Your task to perform on an android device: turn on wifi Image 0: 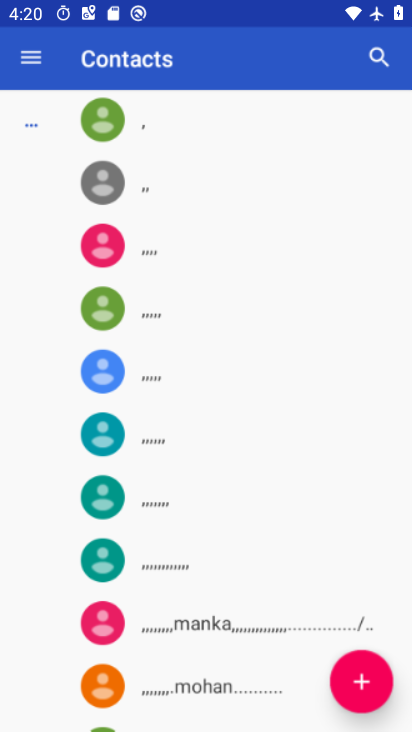
Step 0: drag from (376, 652) to (168, 79)
Your task to perform on an android device: turn on wifi Image 1: 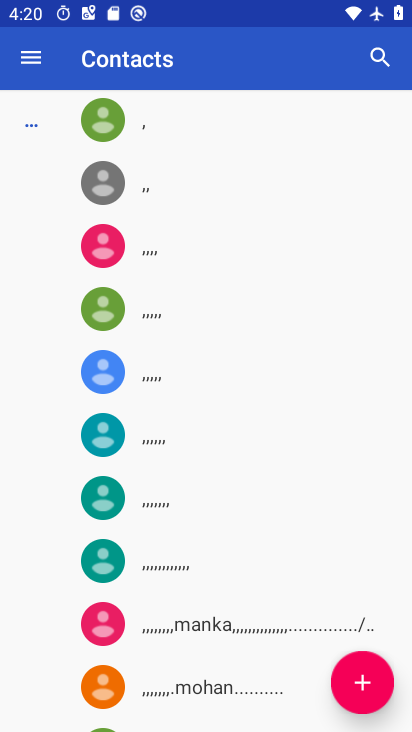
Step 1: press home button
Your task to perform on an android device: turn on wifi Image 2: 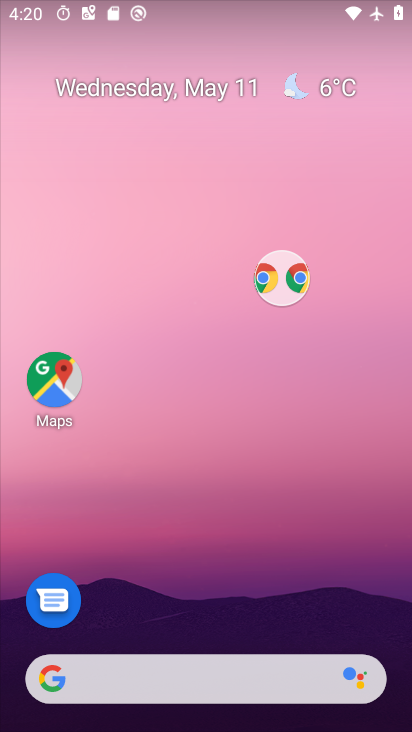
Step 2: drag from (302, 623) to (136, 125)
Your task to perform on an android device: turn on wifi Image 3: 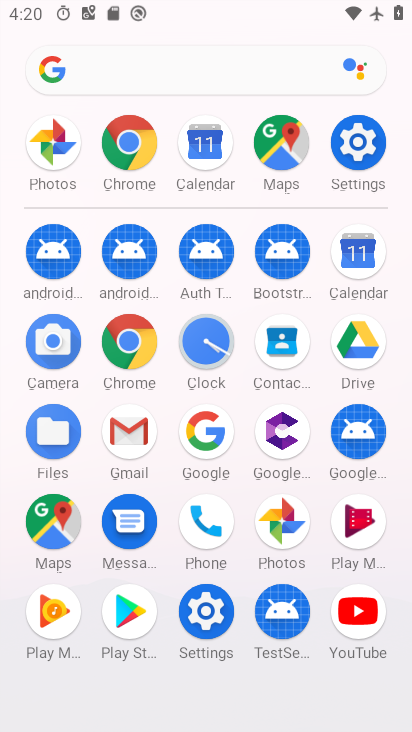
Step 3: click (348, 155)
Your task to perform on an android device: turn on wifi Image 4: 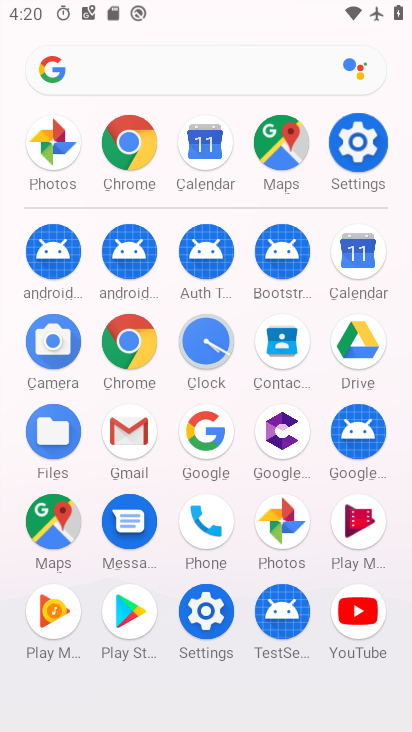
Step 4: click (349, 152)
Your task to perform on an android device: turn on wifi Image 5: 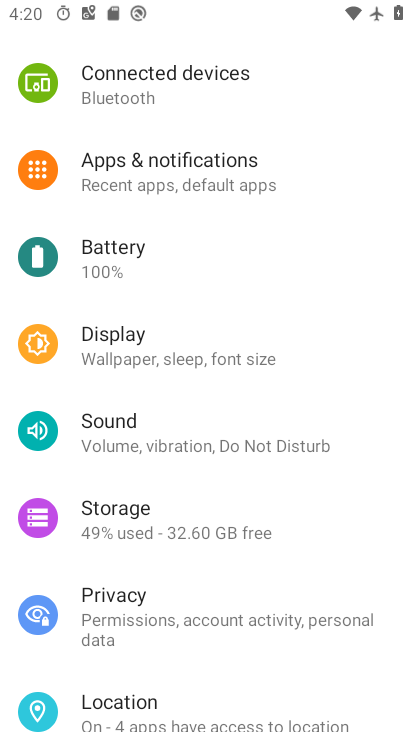
Step 5: drag from (207, 233) to (228, 632)
Your task to perform on an android device: turn on wifi Image 6: 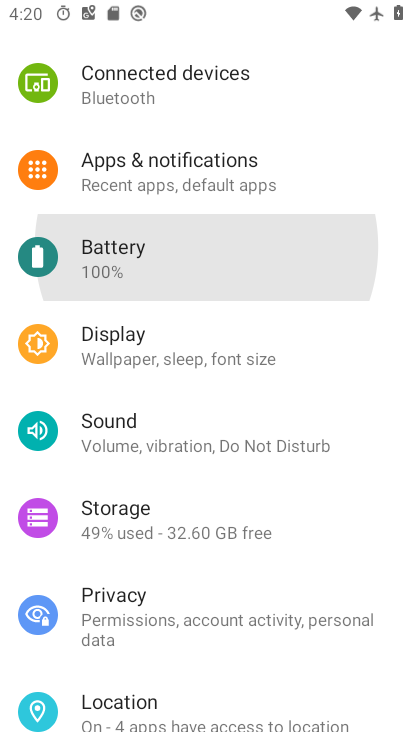
Step 6: drag from (218, 297) to (247, 594)
Your task to perform on an android device: turn on wifi Image 7: 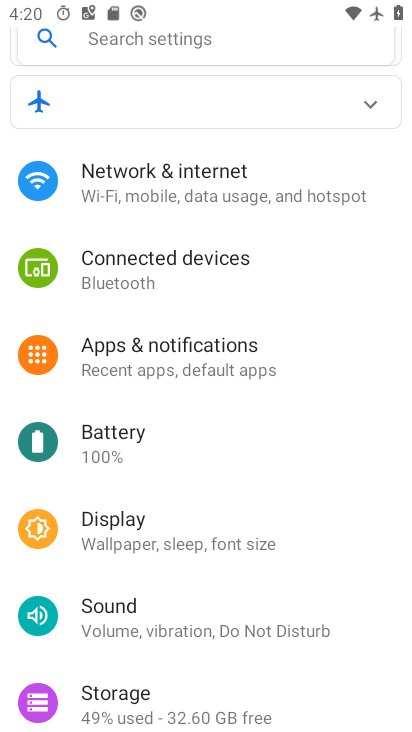
Step 7: drag from (247, 257) to (255, 556)
Your task to perform on an android device: turn on wifi Image 8: 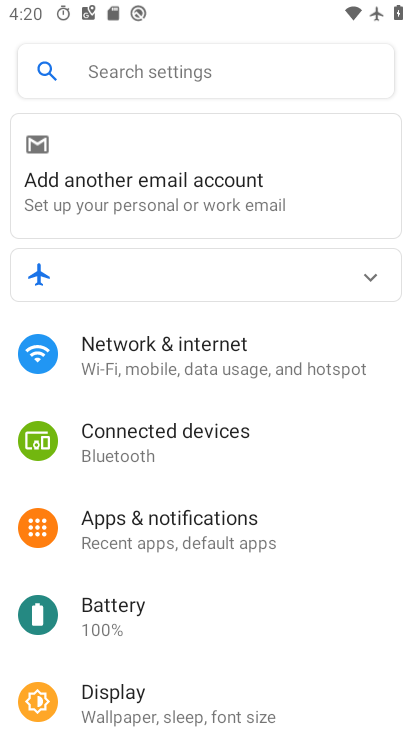
Step 8: click (124, 352)
Your task to perform on an android device: turn on wifi Image 9: 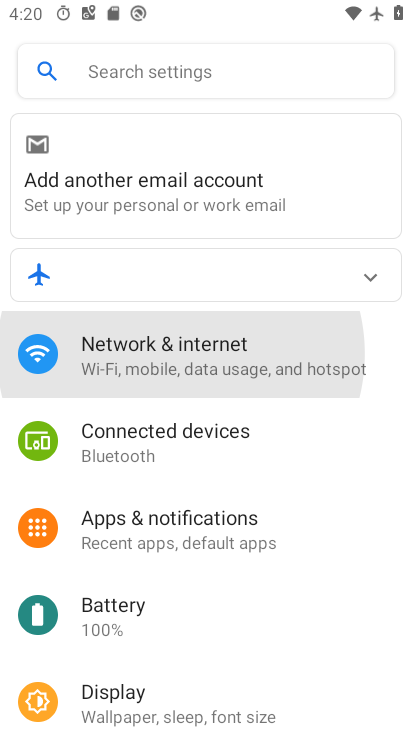
Step 9: click (124, 352)
Your task to perform on an android device: turn on wifi Image 10: 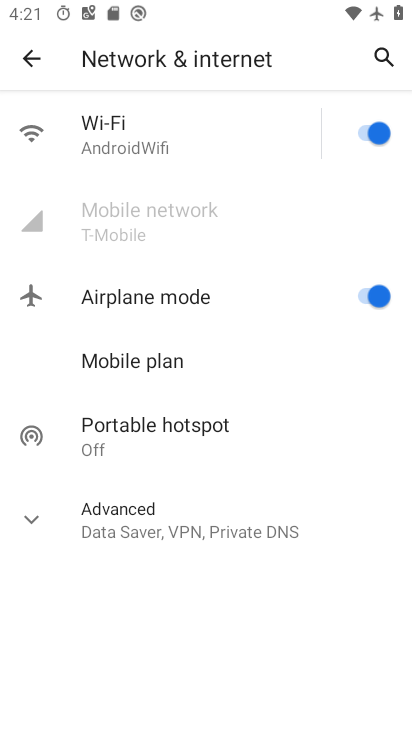
Step 10: task complete